Your task to perform on an android device: open app "Google Play Games" (install if not already installed) Image 0: 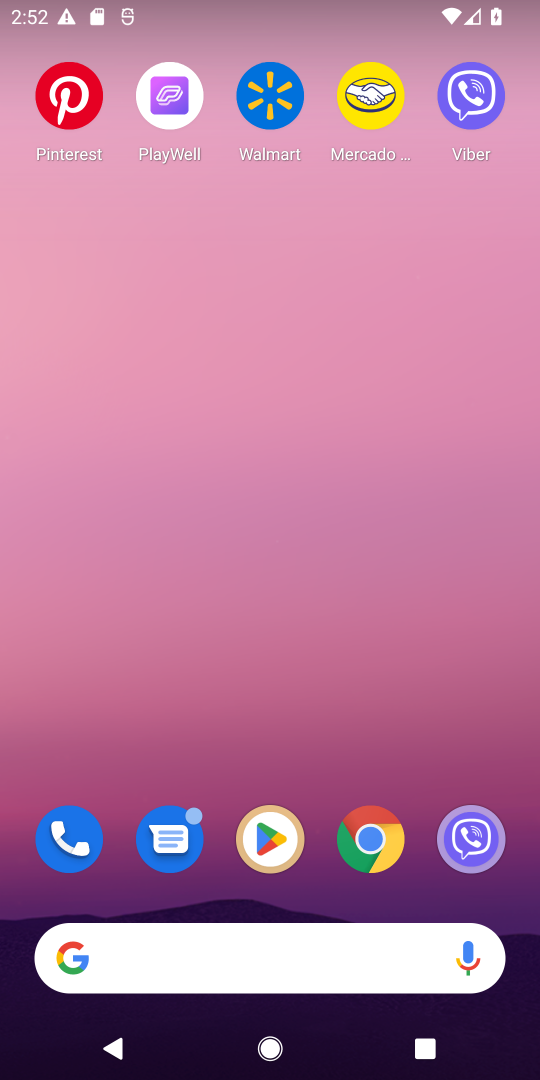
Step 0: drag from (303, 933) to (247, 48)
Your task to perform on an android device: open app "Google Play Games" (install if not already installed) Image 1: 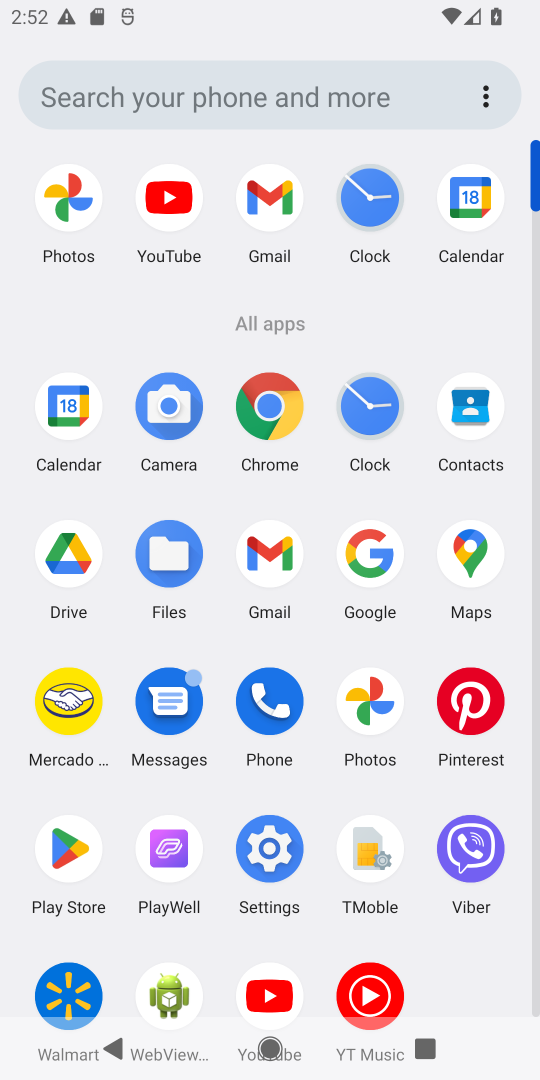
Step 1: click (67, 855)
Your task to perform on an android device: open app "Google Play Games" (install if not already installed) Image 2: 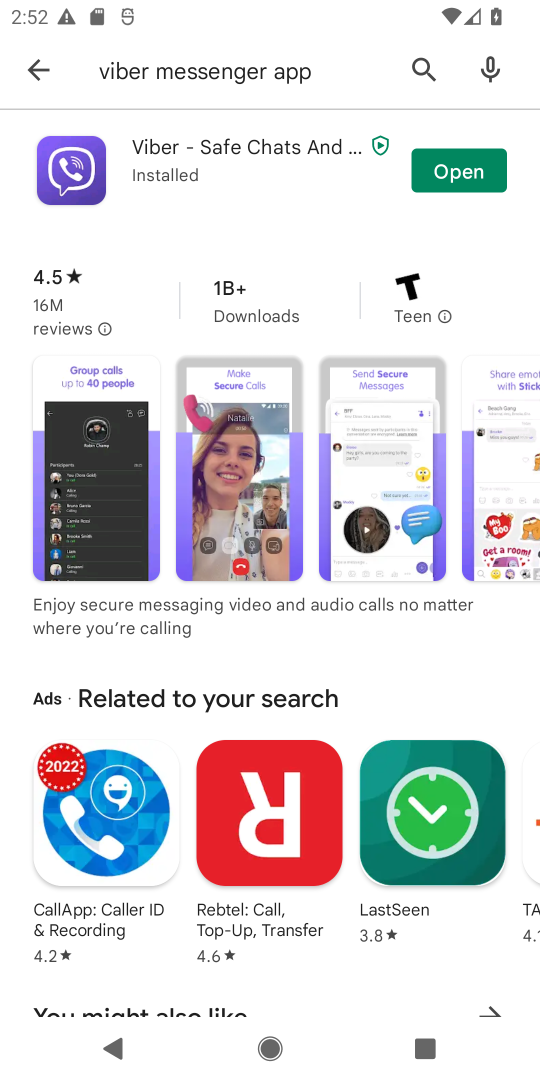
Step 2: click (25, 74)
Your task to perform on an android device: open app "Google Play Games" (install if not already installed) Image 3: 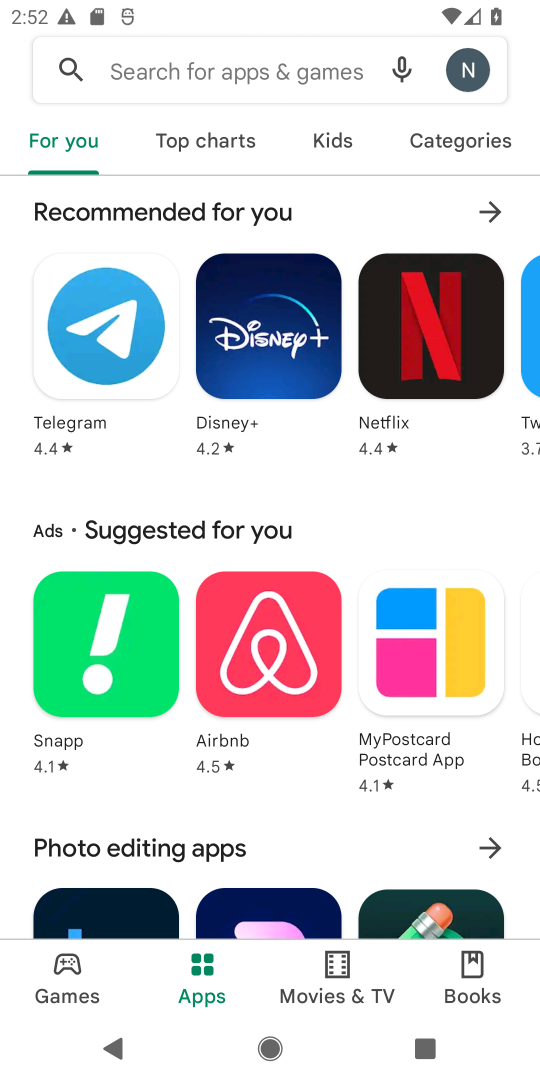
Step 3: click (183, 71)
Your task to perform on an android device: open app "Google Play Games" (install if not already installed) Image 4: 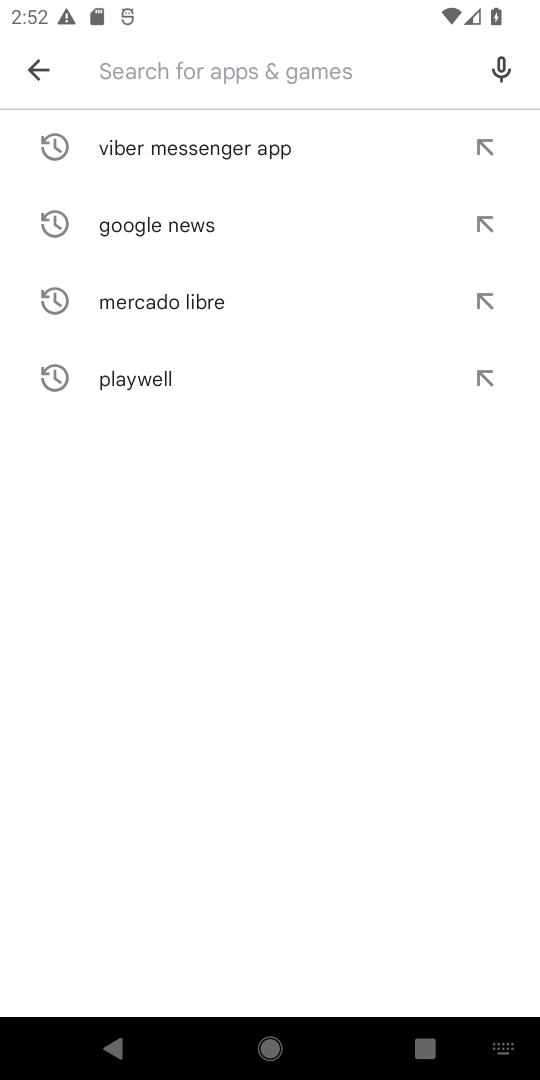
Step 4: type "Google Play Games"
Your task to perform on an android device: open app "Google Play Games" (install if not already installed) Image 5: 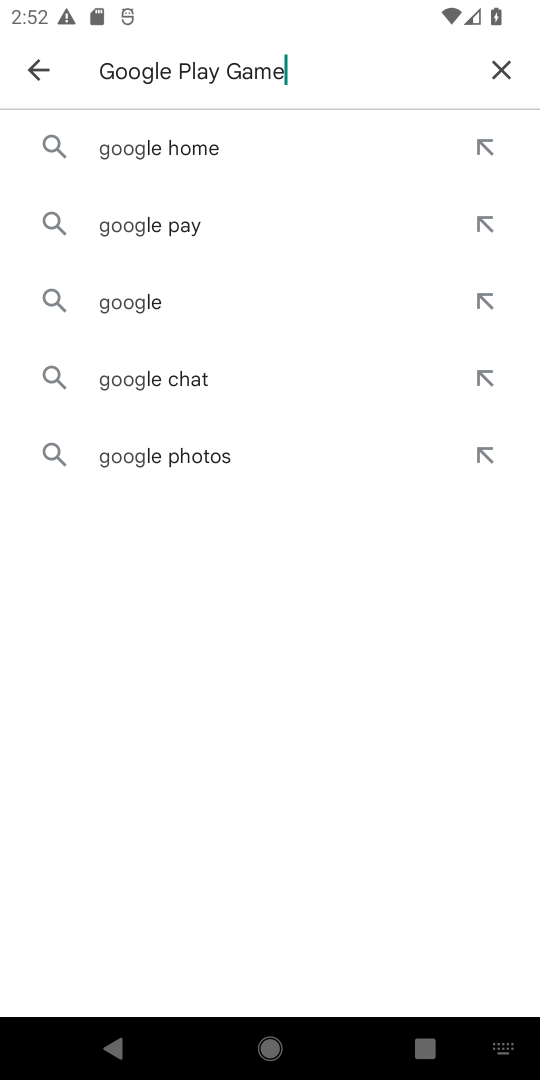
Step 5: type ""
Your task to perform on an android device: open app "Google Play Games" (install if not already installed) Image 6: 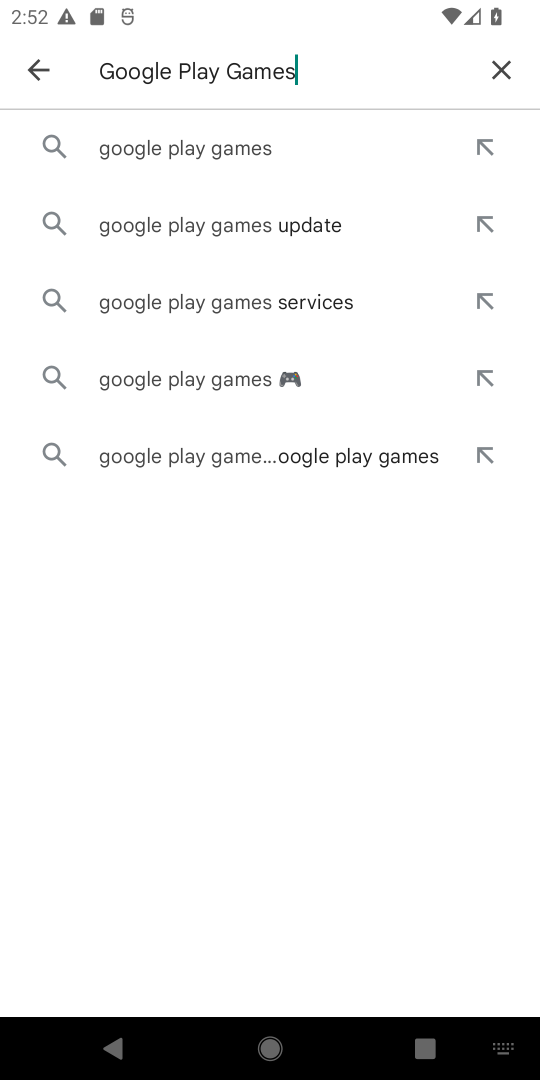
Step 6: click (178, 161)
Your task to perform on an android device: open app "Google Play Games" (install if not already installed) Image 7: 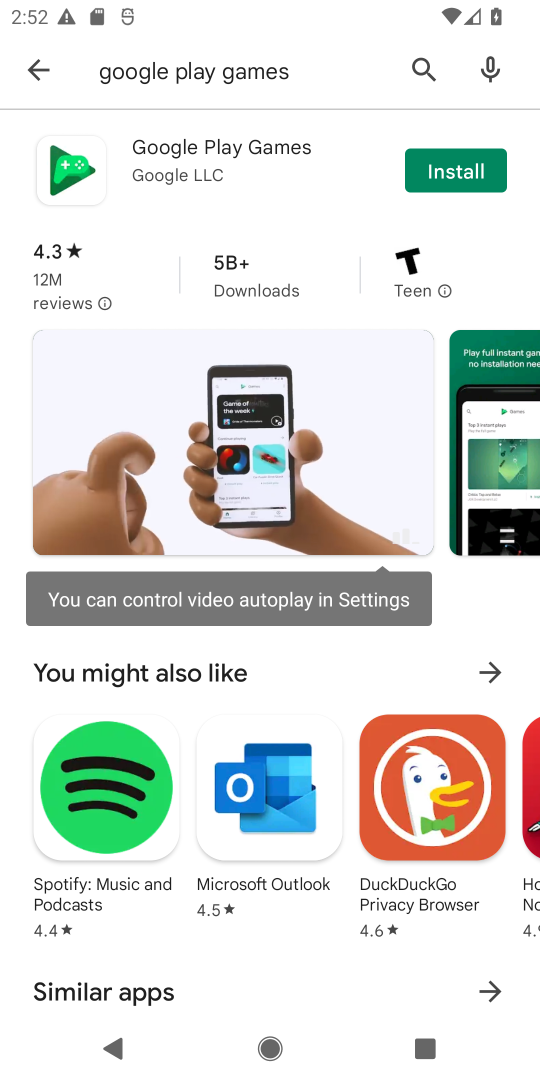
Step 7: click (444, 179)
Your task to perform on an android device: open app "Google Play Games" (install if not already installed) Image 8: 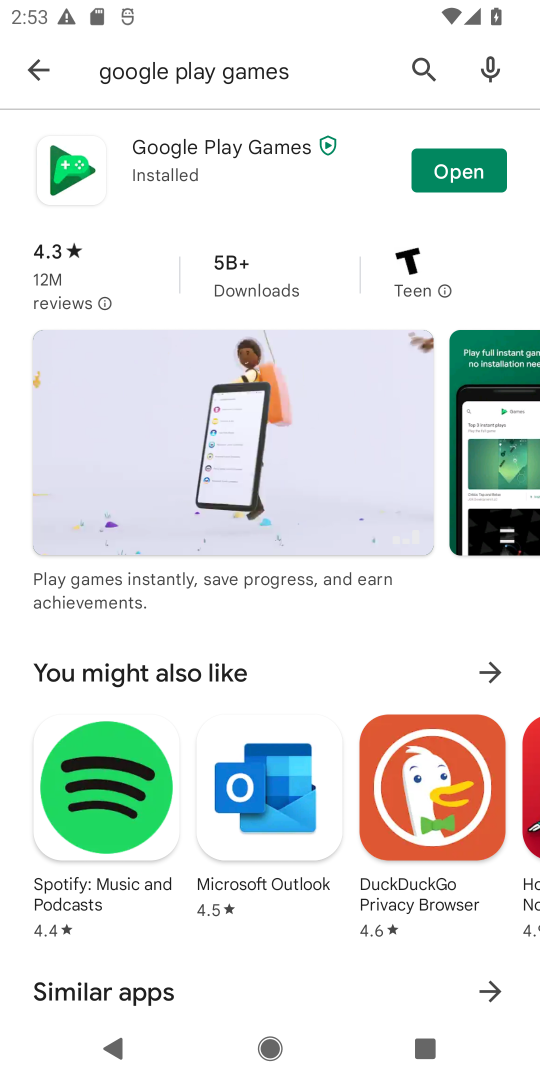
Step 8: click (445, 185)
Your task to perform on an android device: open app "Google Play Games" (install if not already installed) Image 9: 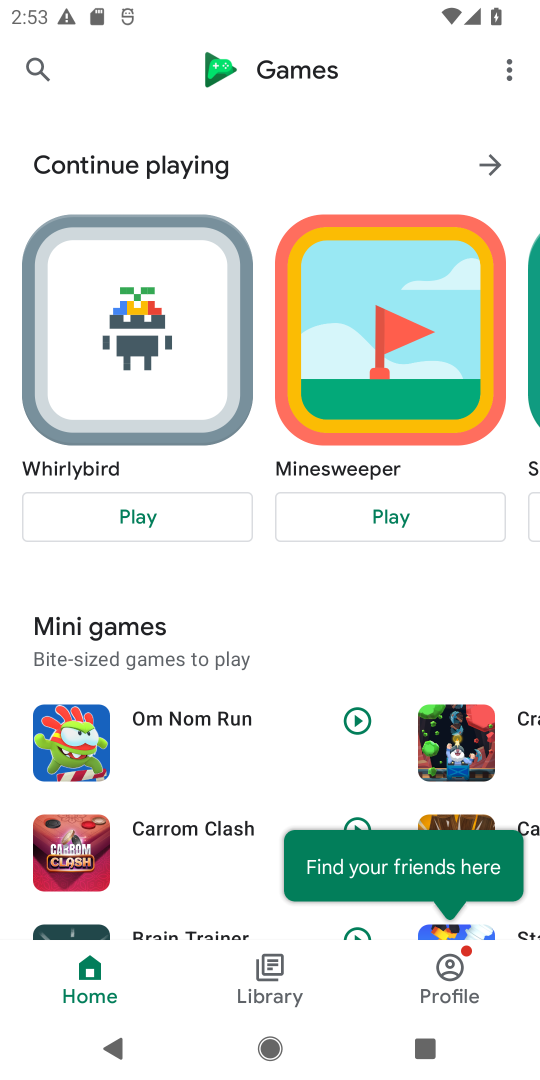
Step 9: click (19, 48)
Your task to perform on an android device: open app "Google Play Games" (install if not already installed) Image 10: 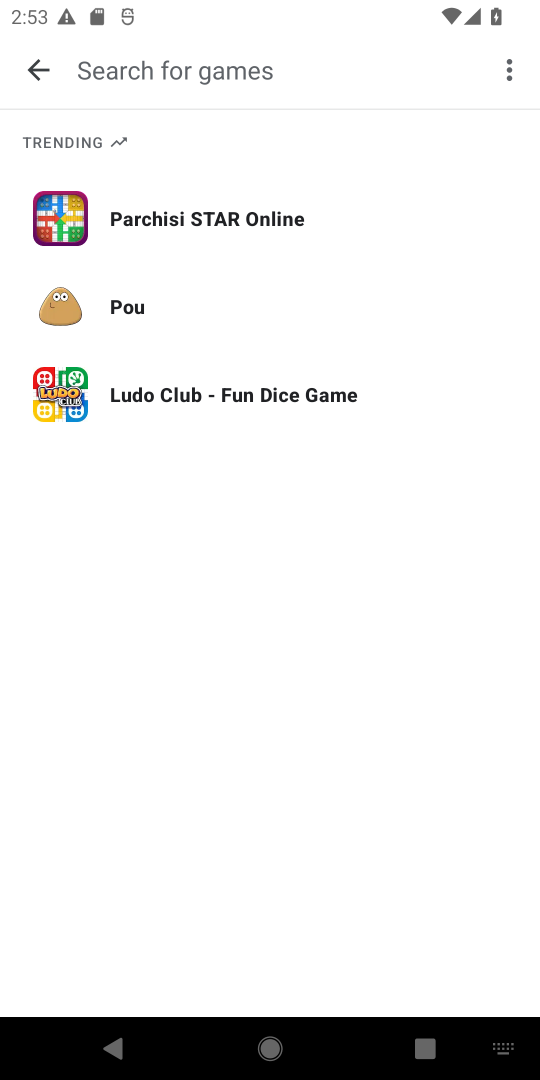
Step 10: type "Google Play Games"
Your task to perform on an android device: open app "Google Play Games" (install if not already installed) Image 11: 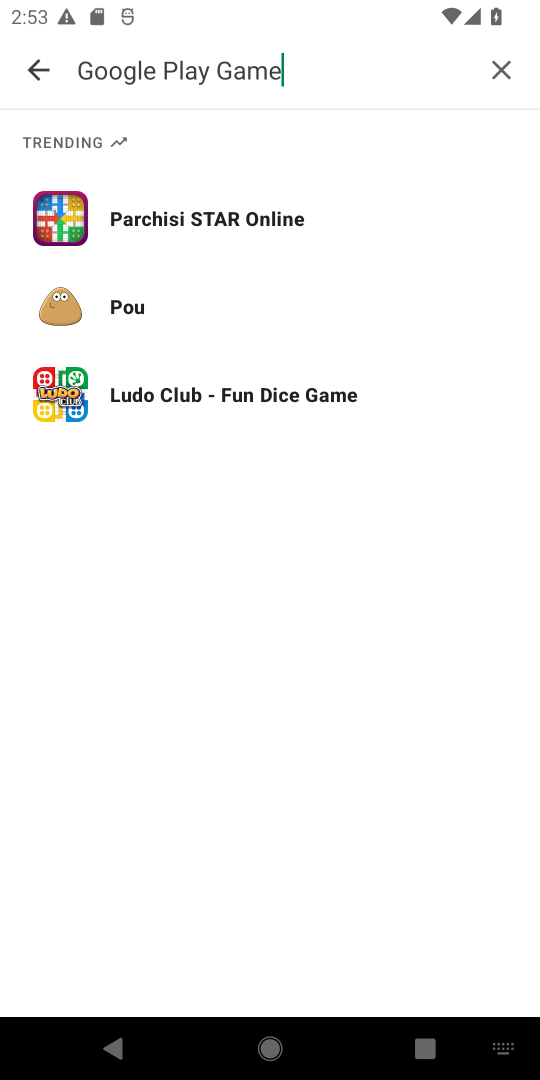
Step 11: type ""
Your task to perform on an android device: open app "Google Play Games" (install if not already installed) Image 12: 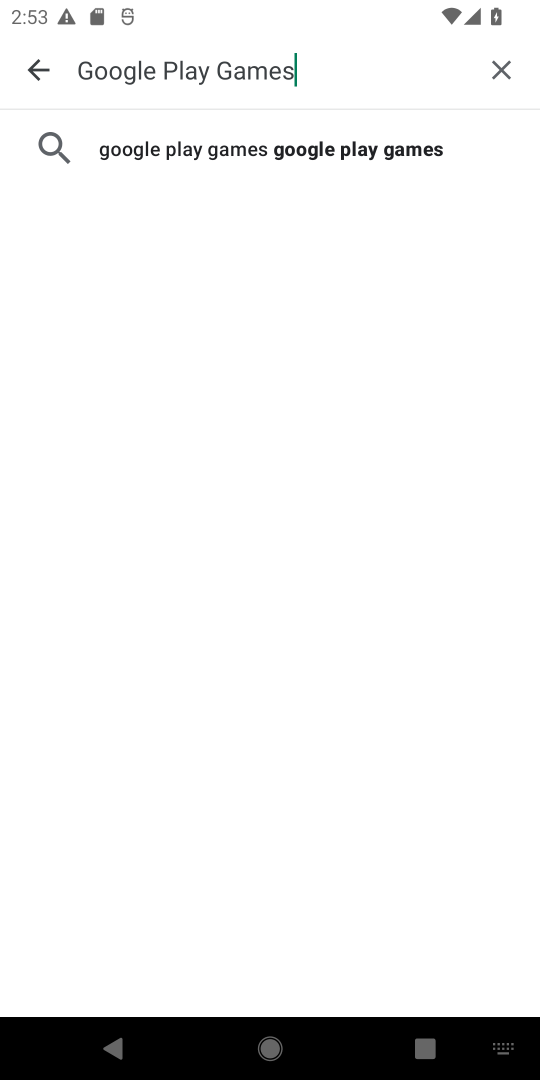
Step 12: click (272, 161)
Your task to perform on an android device: open app "Google Play Games" (install if not already installed) Image 13: 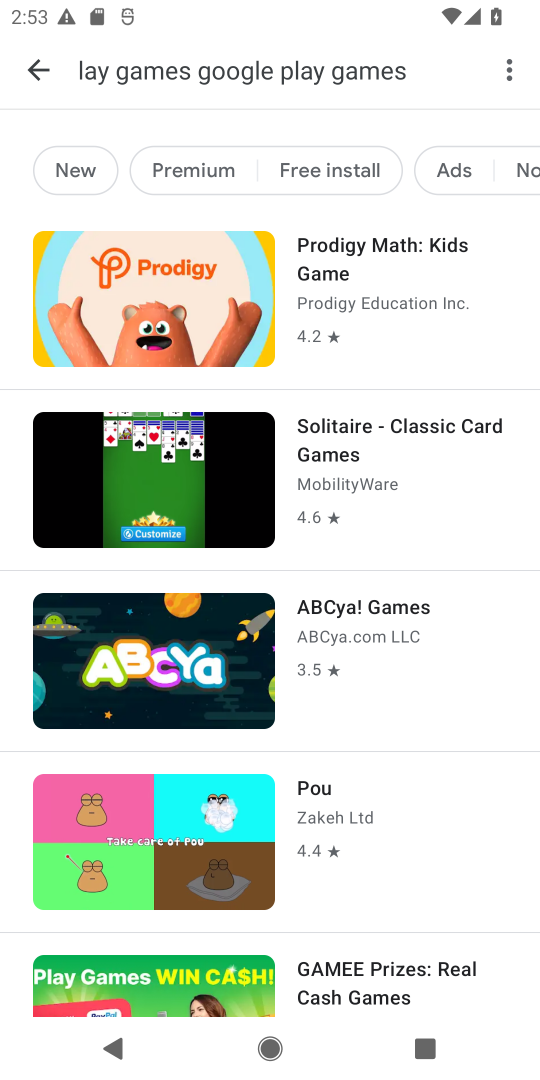
Step 13: click (15, 79)
Your task to perform on an android device: open app "Google Play Games" (install if not already installed) Image 14: 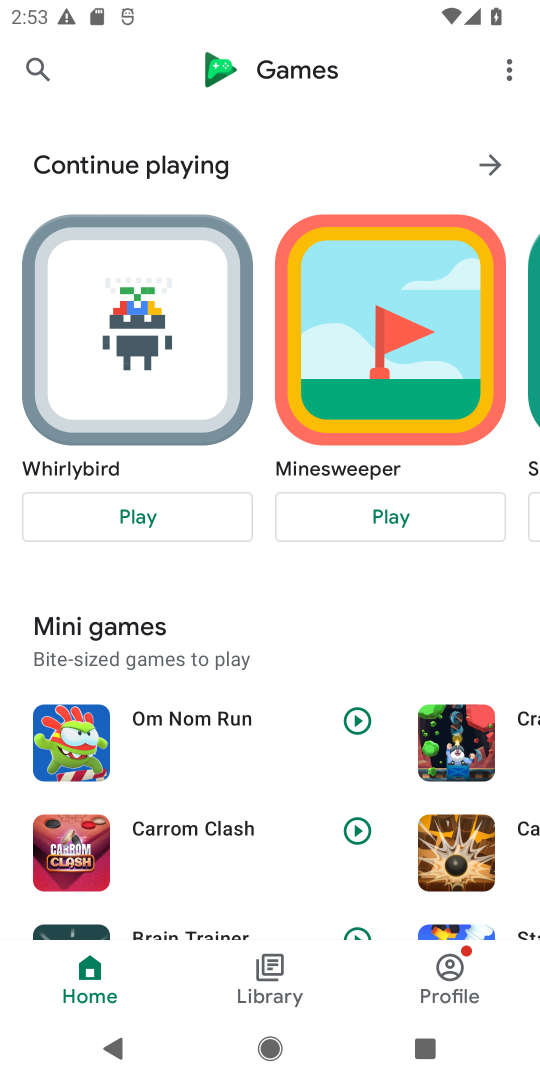
Step 14: task complete